Your task to perform on an android device: Open CNN.com Image 0: 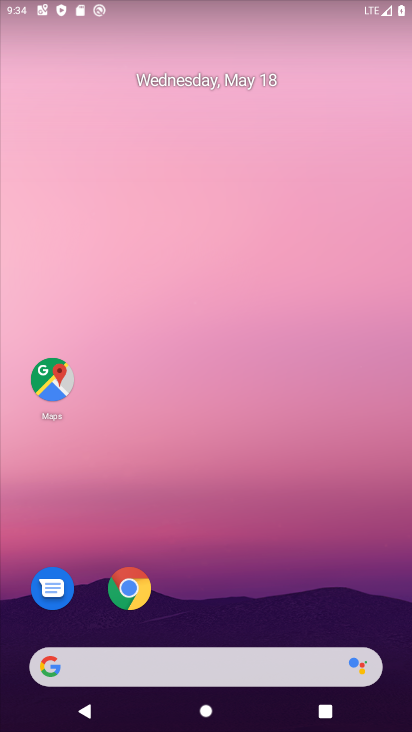
Step 0: click (137, 596)
Your task to perform on an android device: Open CNN.com Image 1: 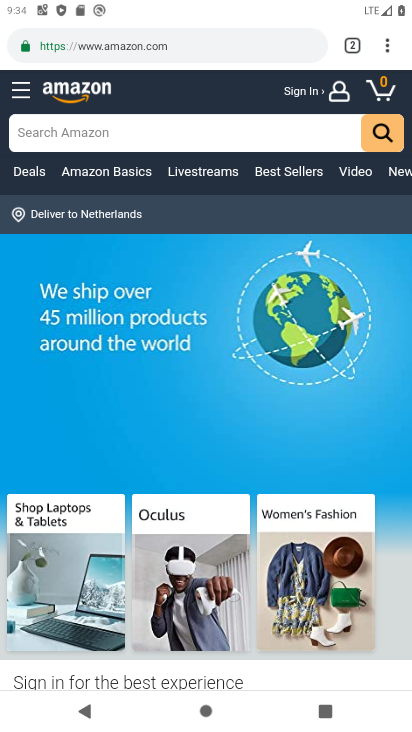
Step 1: click (96, 50)
Your task to perform on an android device: Open CNN.com Image 2: 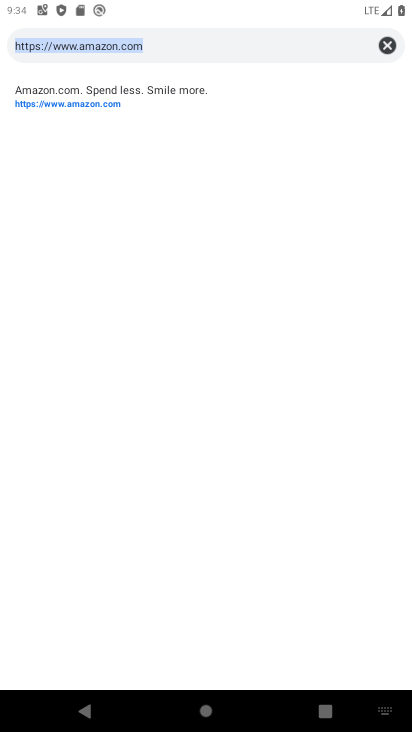
Step 2: click (391, 45)
Your task to perform on an android device: Open CNN.com Image 3: 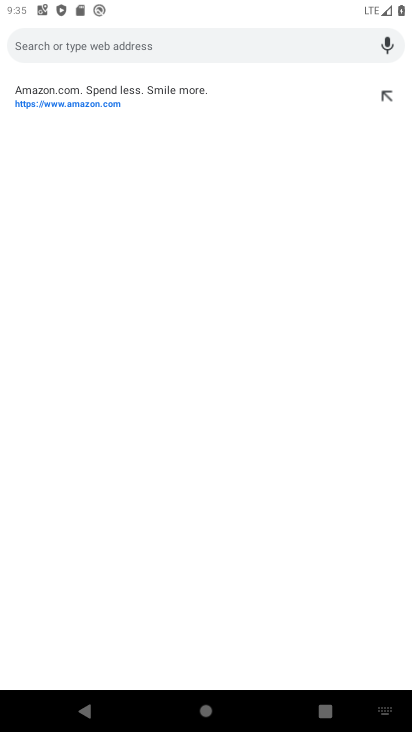
Step 3: type "cnn.com"
Your task to perform on an android device: Open CNN.com Image 4: 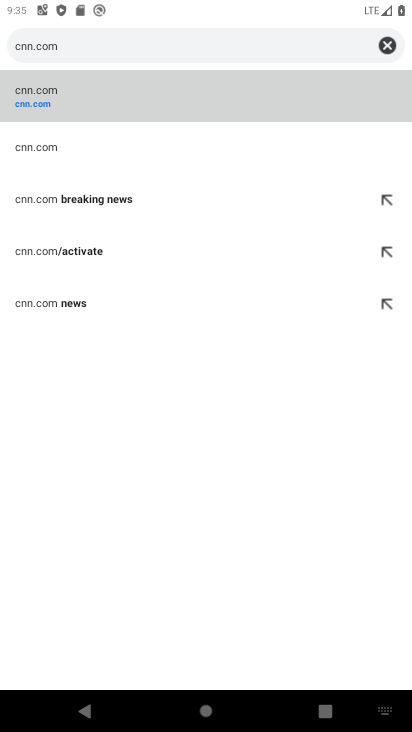
Step 4: click (20, 102)
Your task to perform on an android device: Open CNN.com Image 5: 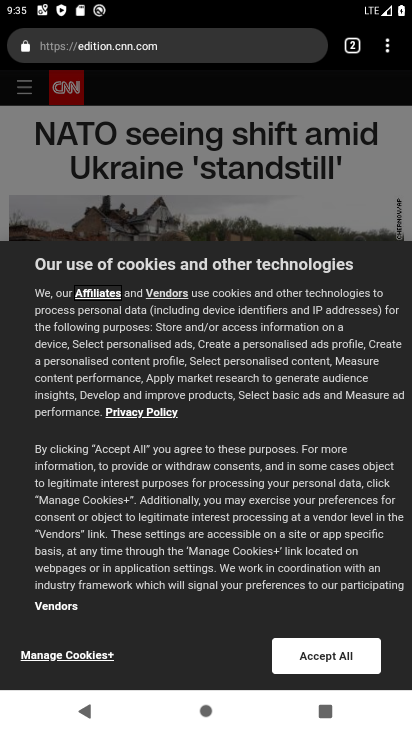
Step 5: task complete